Your task to perform on an android device: Open my contact list Image 0: 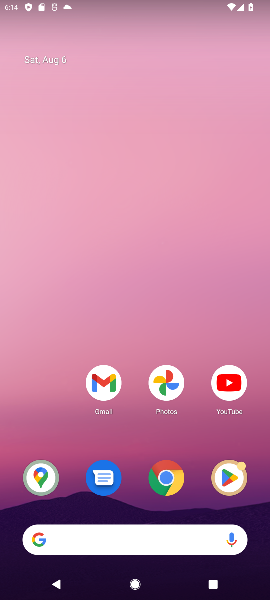
Step 0: press home button
Your task to perform on an android device: Open my contact list Image 1: 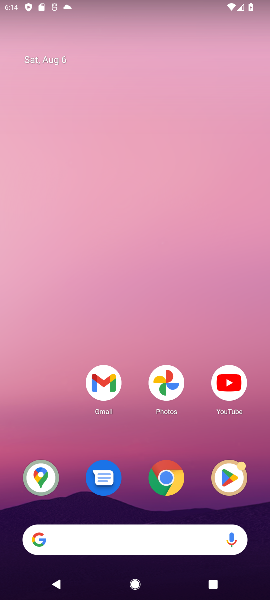
Step 1: drag from (153, 492) to (152, 113)
Your task to perform on an android device: Open my contact list Image 2: 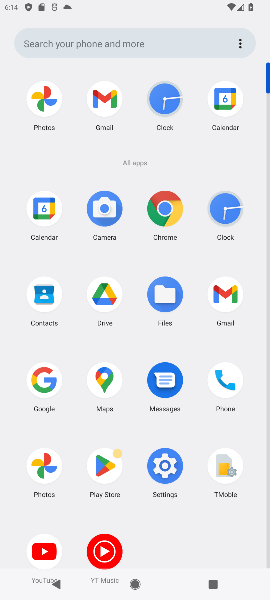
Step 2: click (47, 302)
Your task to perform on an android device: Open my contact list Image 3: 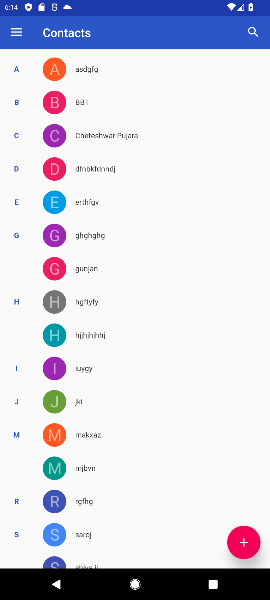
Step 3: task complete